Your task to perform on an android device: Go to location settings Image 0: 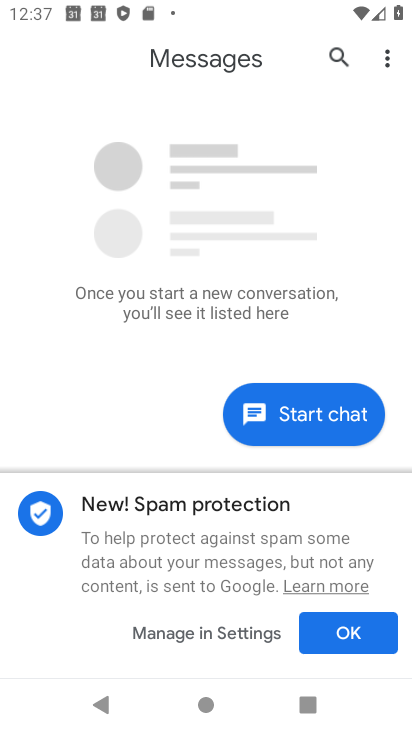
Step 0: press home button
Your task to perform on an android device: Go to location settings Image 1: 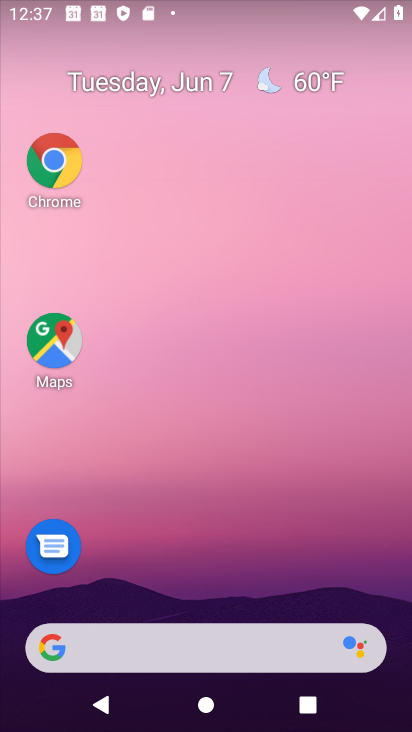
Step 1: drag from (213, 547) to (252, 7)
Your task to perform on an android device: Go to location settings Image 2: 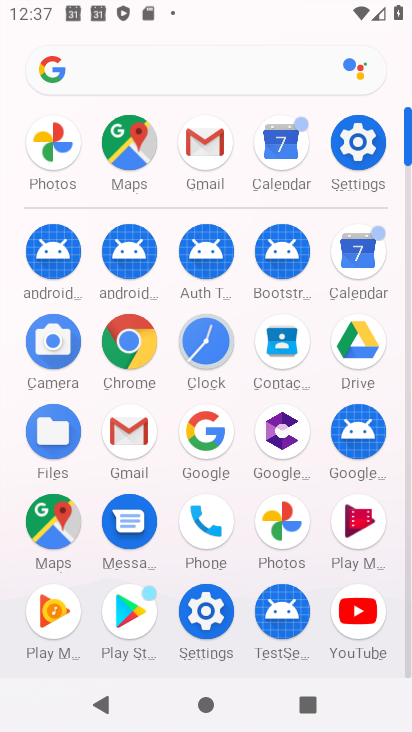
Step 2: click (367, 139)
Your task to perform on an android device: Go to location settings Image 3: 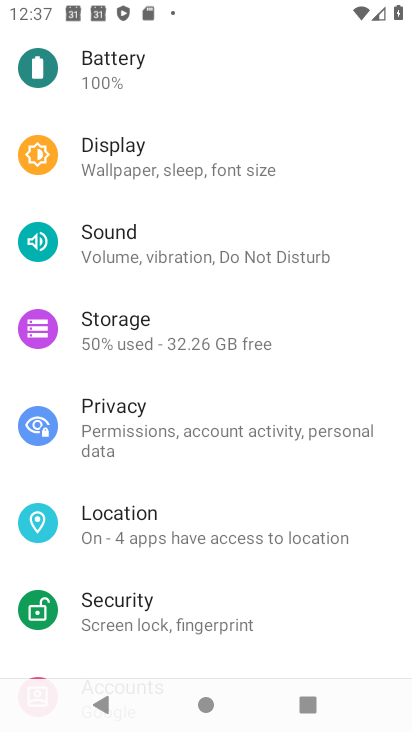
Step 3: click (143, 524)
Your task to perform on an android device: Go to location settings Image 4: 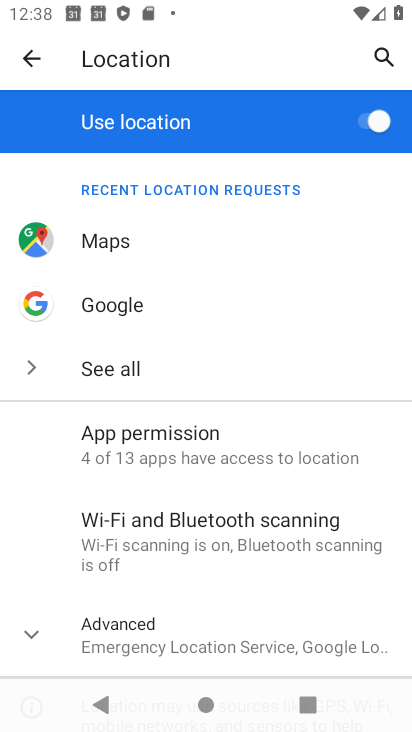
Step 4: task complete